Your task to perform on an android device: Open Google Chrome Image 0: 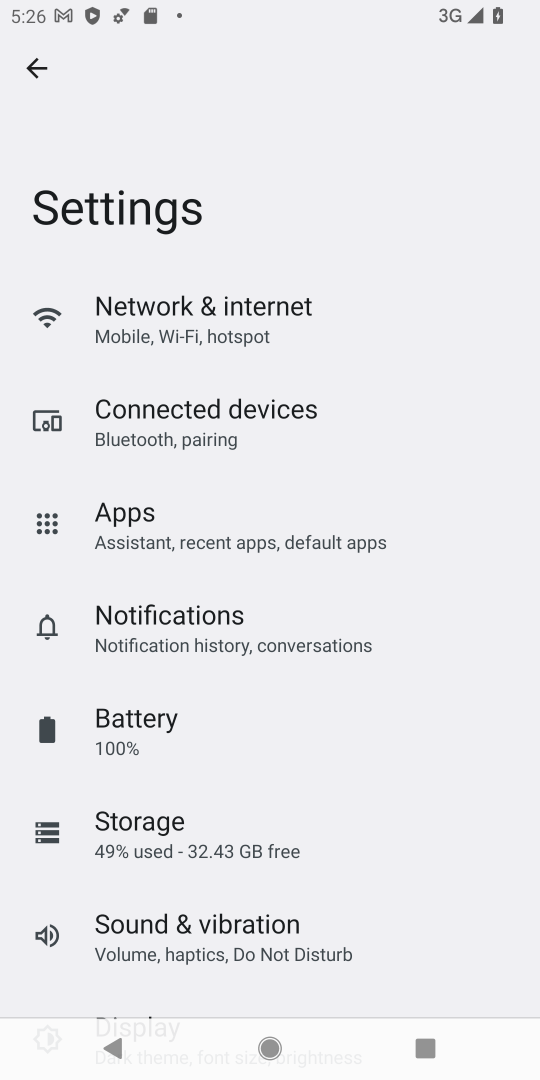
Step 0: press home button
Your task to perform on an android device: Open Google Chrome Image 1: 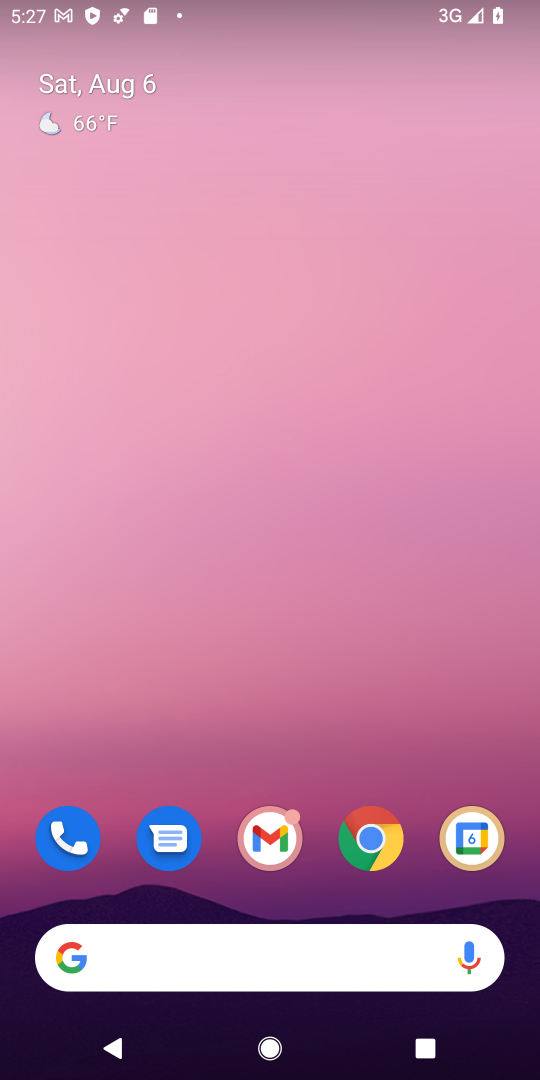
Step 1: drag from (295, 875) to (372, 156)
Your task to perform on an android device: Open Google Chrome Image 2: 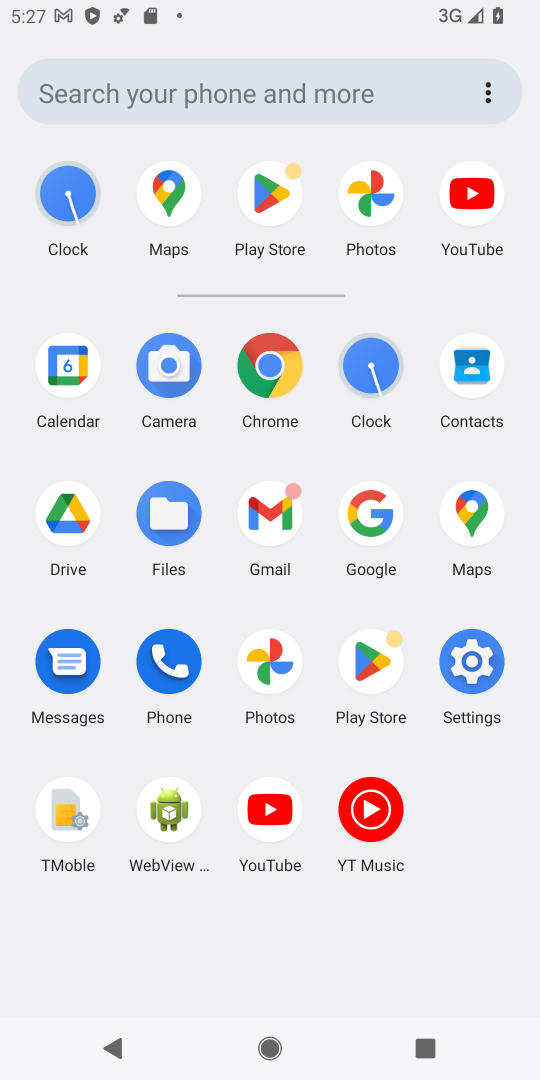
Step 2: click (258, 374)
Your task to perform on an android device: Open Google Chrome Image 3: 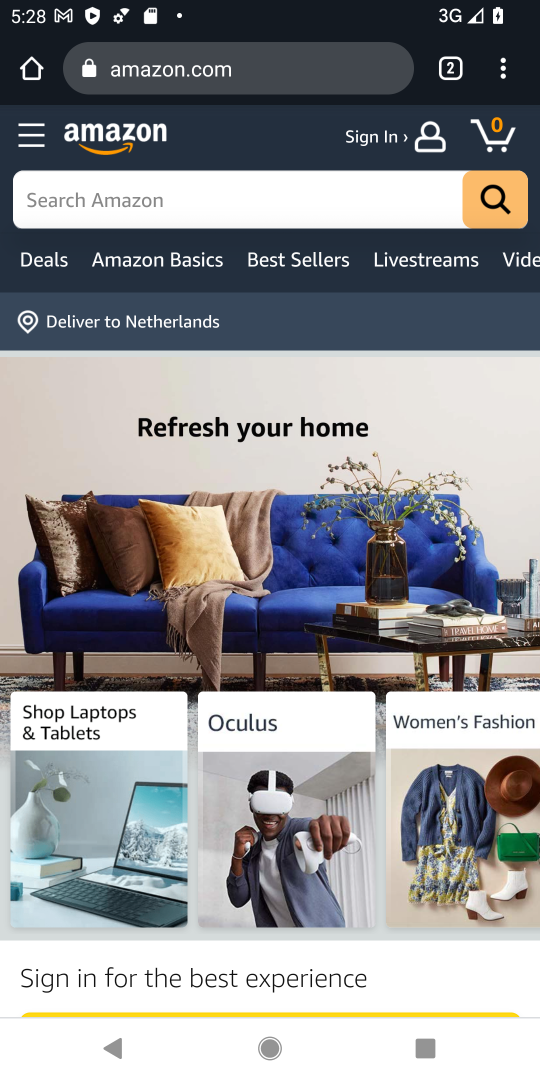
Step 3: task complete